Your task to perform on an android device: open sync settings in chrome Image 0: 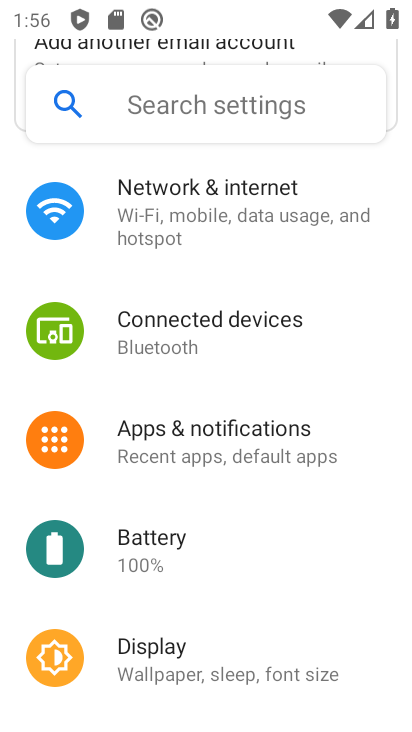
Step 0: press home button
Your task to perform on an android device: open sync settings in chrome Image 1: 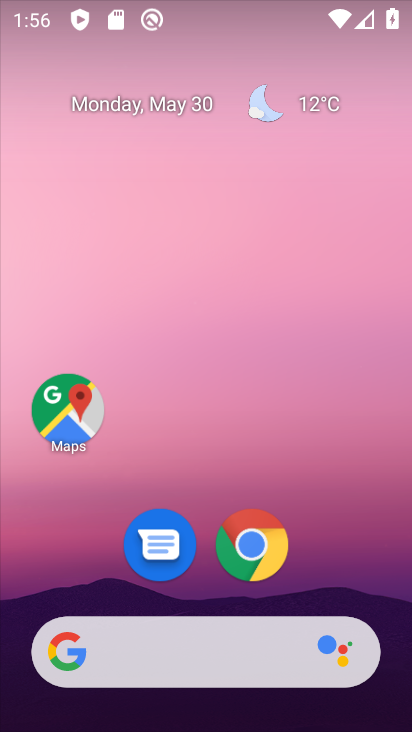
Step 1: click (238, 544)
Your task to perform on an android device: open sync settings in chrome Image 2: 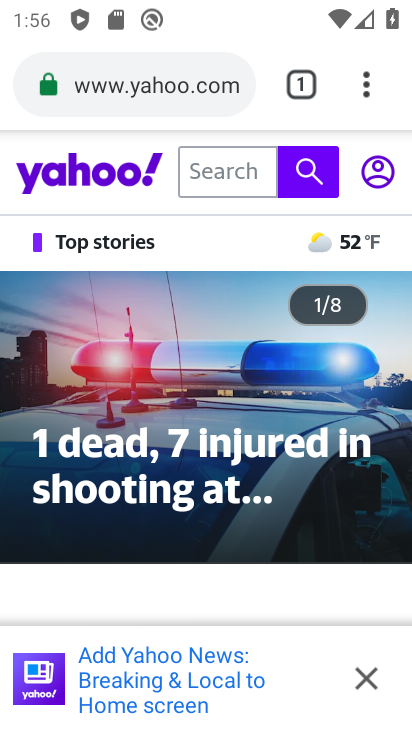
Step 2: click (382, 78)
Your task to perform on an android device: open sync settings in chrome Image 3: 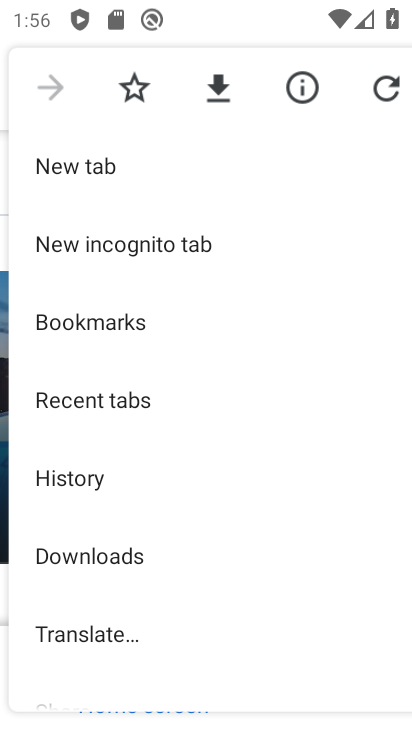
Step 3: drag from (149, 607) to (275, 154)
Your task to perform on an android device: open sync settings in chrome Image 4: 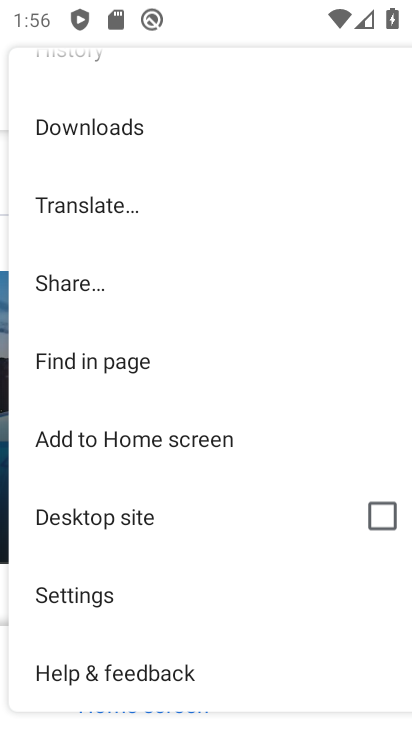
Step 4: drag from (121, 594) to (285, 62)
Your task to perform on an android device: open sync settings in chrome Image 5: 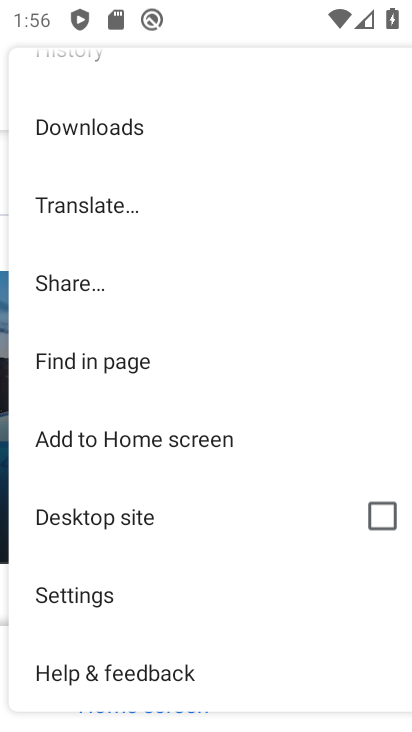
Step 5: click (64, 609)
Your task to perform on an android device: open sync settings in chrome Image 6: 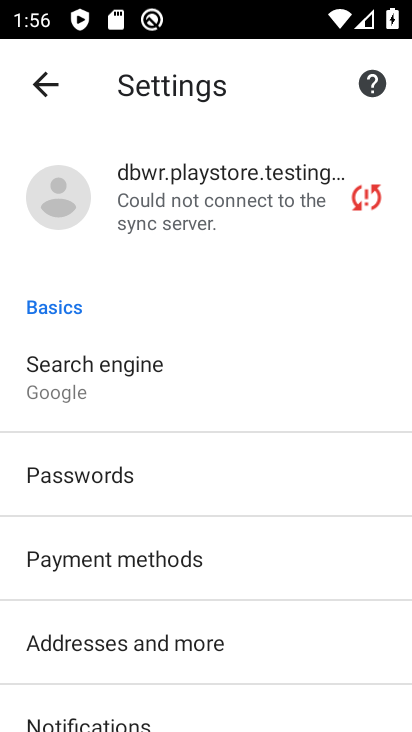
Step 6: click (305, 189)
Your task to perform on an android device: open sync settings in chrome Image 7: 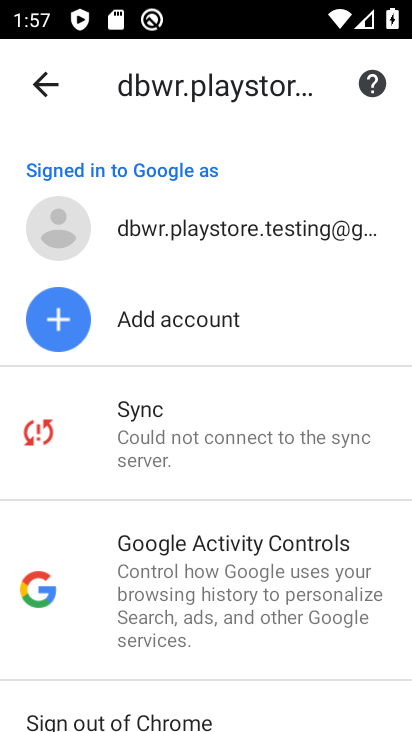
Step 7: click (150, 470)
Your task to perform on an android device: open sync settings in chrome Image 8: 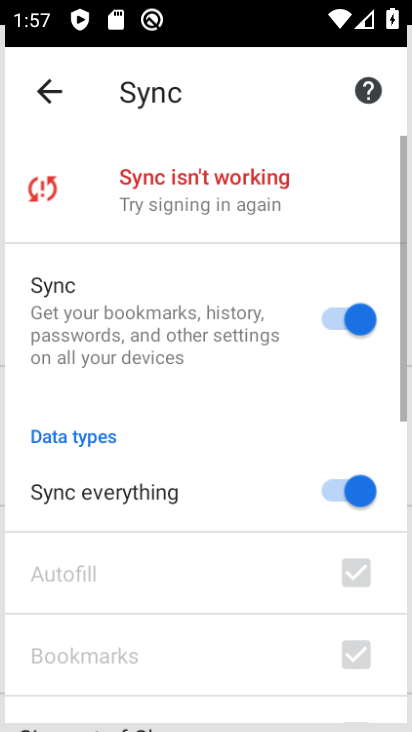
Step 8: click (134, 435)
Your task to perform on an android device: open sync settings in chrome Image 9: 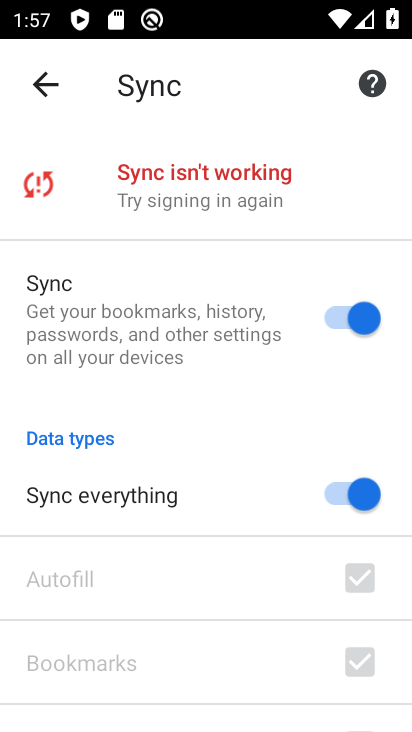
Step 9: task complete